Your task to perform on an android device: Search for "logitech g502" on target.com, select the first entry, add it to the cart, then select checkout. Image 0: 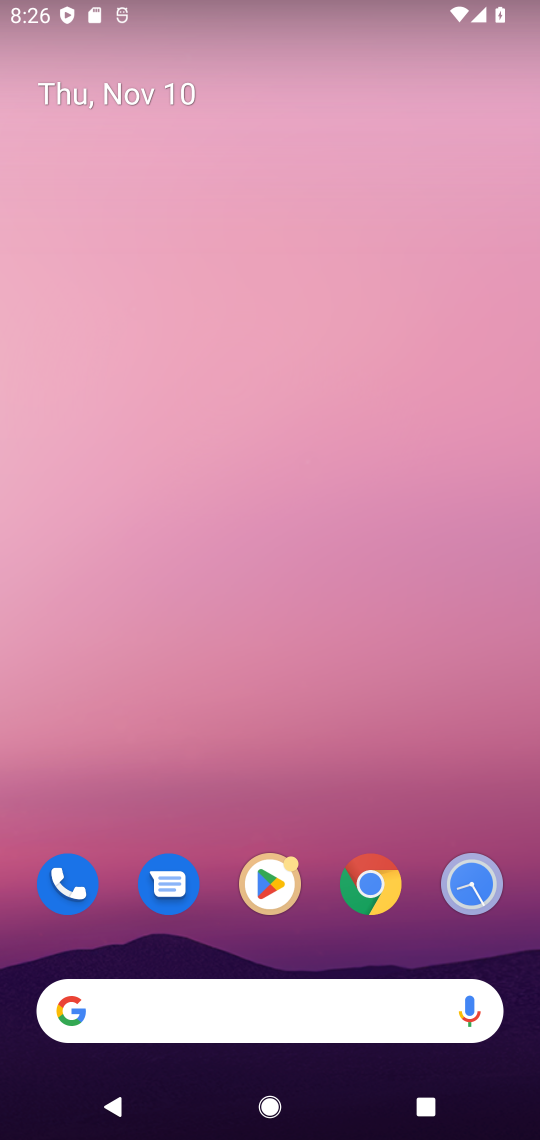
Step 0: click (316, 997)
Your task to perform on an android device: Search for "logitech g502" on target.com, select the first entry, add it to the cart, then select checkout. Image 1: 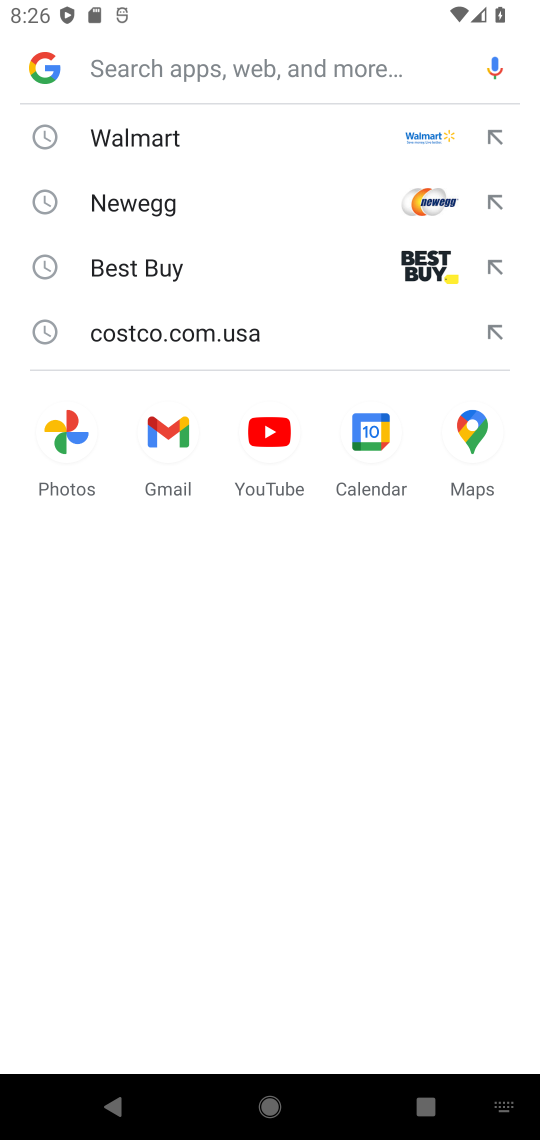
Step 1: type " target.com"
Your task to perform on an android device: Search for "logitech g502" on target.com, select the first entry, add it to the cart, then select checkout. Image 2: 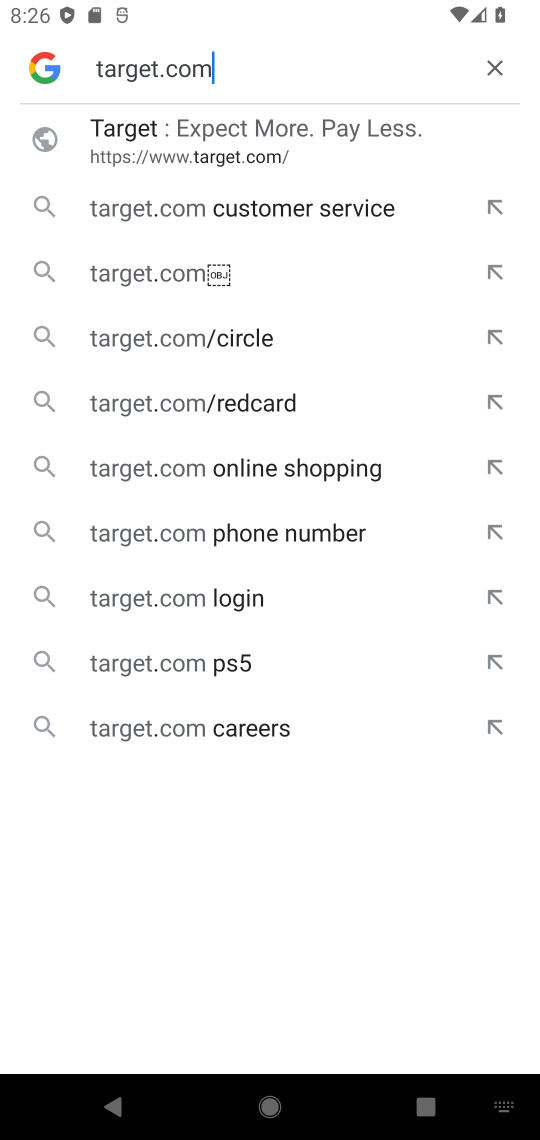
Step 2: click (225, 142)
Your task to perform on an android device: Search for "logitech g502" on target.com, select the first entry, add it to the cart, then select checkout. Image 3: 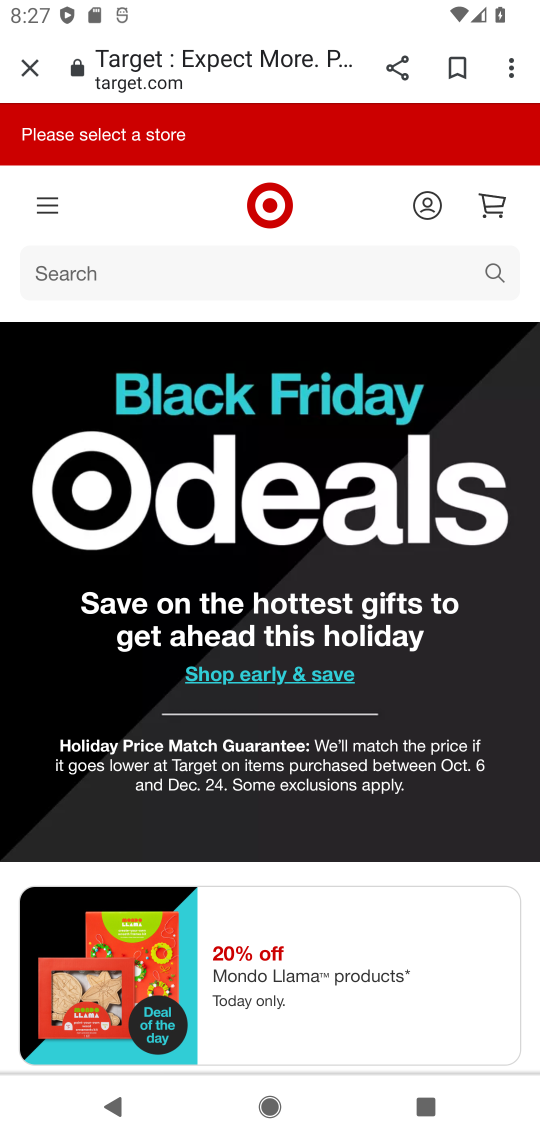
Step 3: click (162, 280)
Your task to perform on an android device: Search for "logitech g502" on target.com, select the first entry, add it to the cart, then select checkout. Image 4: 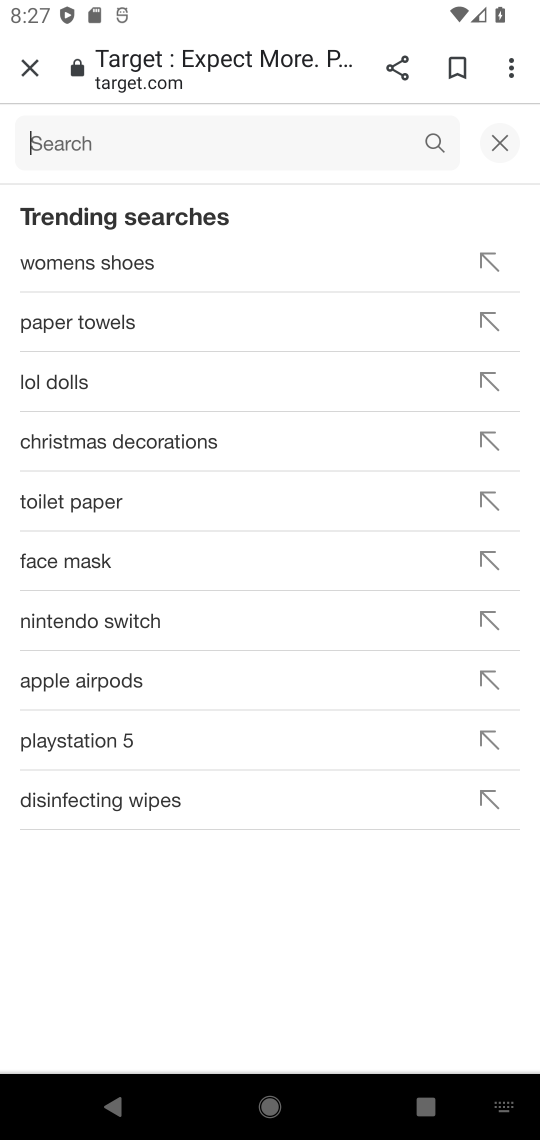
Step 4: type "logitech g502"
Your task to perform on an android device: Search for "logitech g502" on target.com, select the first entry, add it to the cart, then select checkout. Image 5: 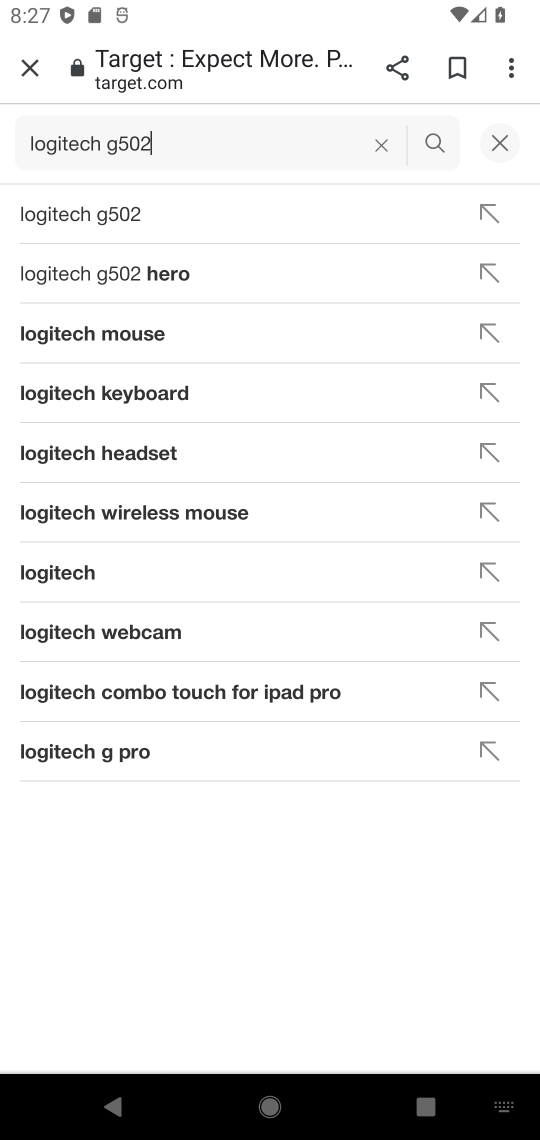
Step 5: click (98, 217)
Your task to perform on an android device: Search for "logitech g502" on target.com, select the first entry, add it to the cart, then select checkout. Image 6: 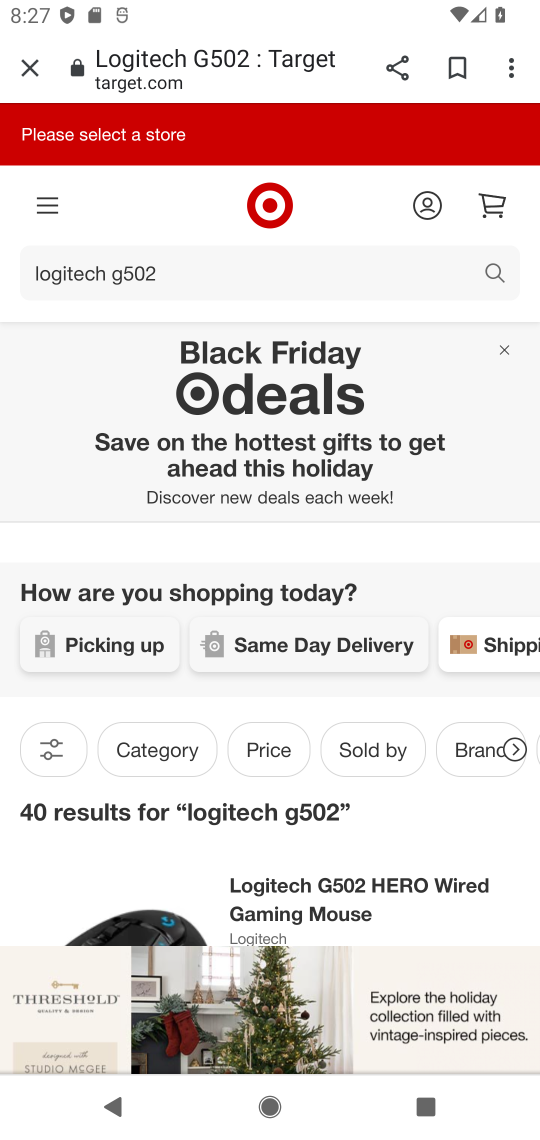
Step 6: drag from (284, 781) to (305, 585)
Your task to perform on an android device: Search for "logitech g502" on target.com, select the first entry, add it to the cart, then select checkout. Image 7: 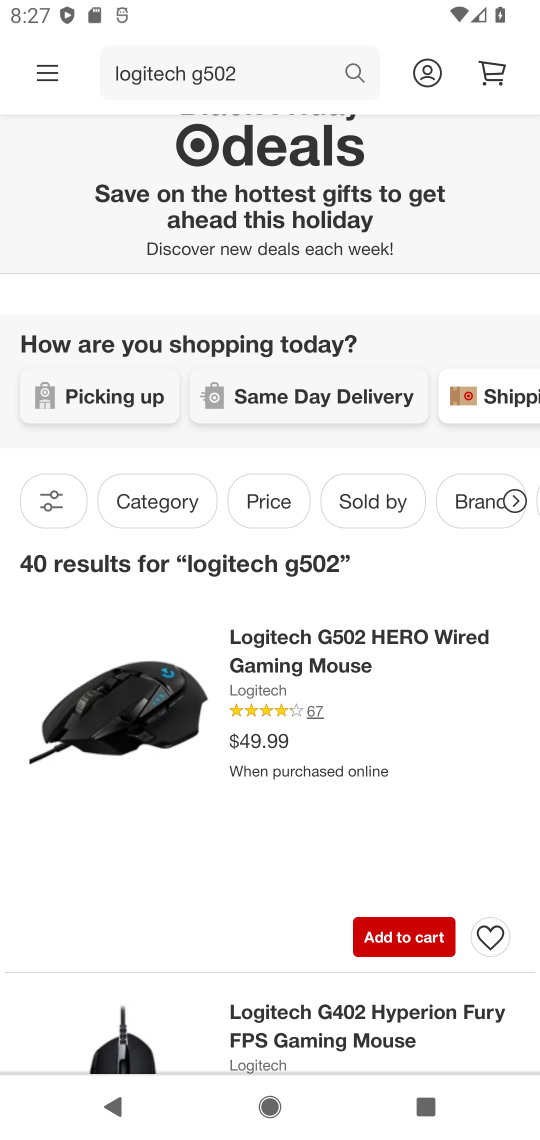
Step 7: click (392, 931)
Your task to perform on an android device: Search for "logitech g502" on target.com, select the first entry, add it to the cart, then select checkout. Image 8: 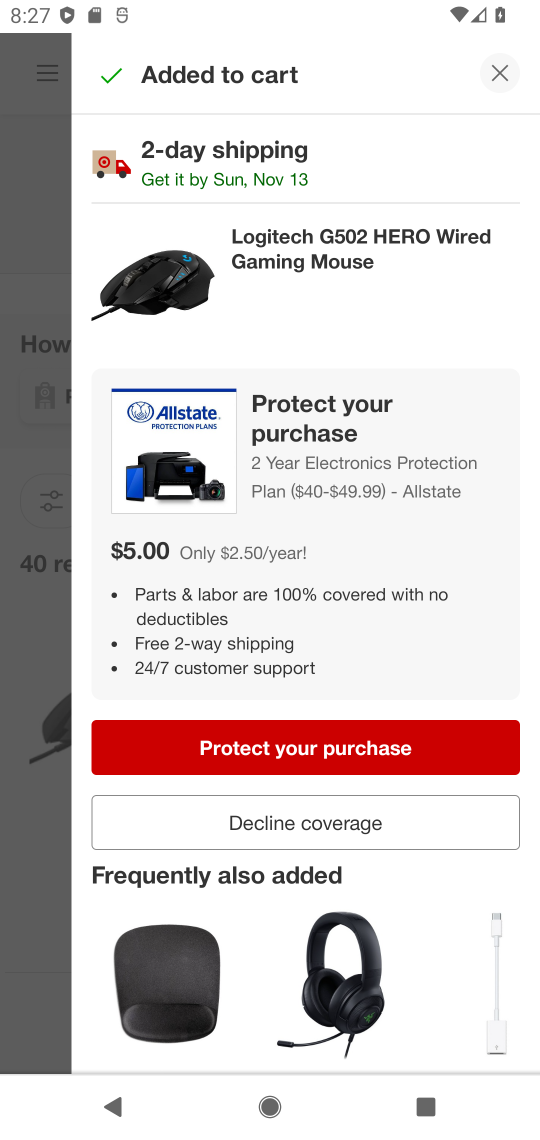
Step 8: click (315, 821)
Your task to perform on an android device: Search for "logitech g502" on target.com, select the first entry, add it to the cart, then select checkout. Image 9: 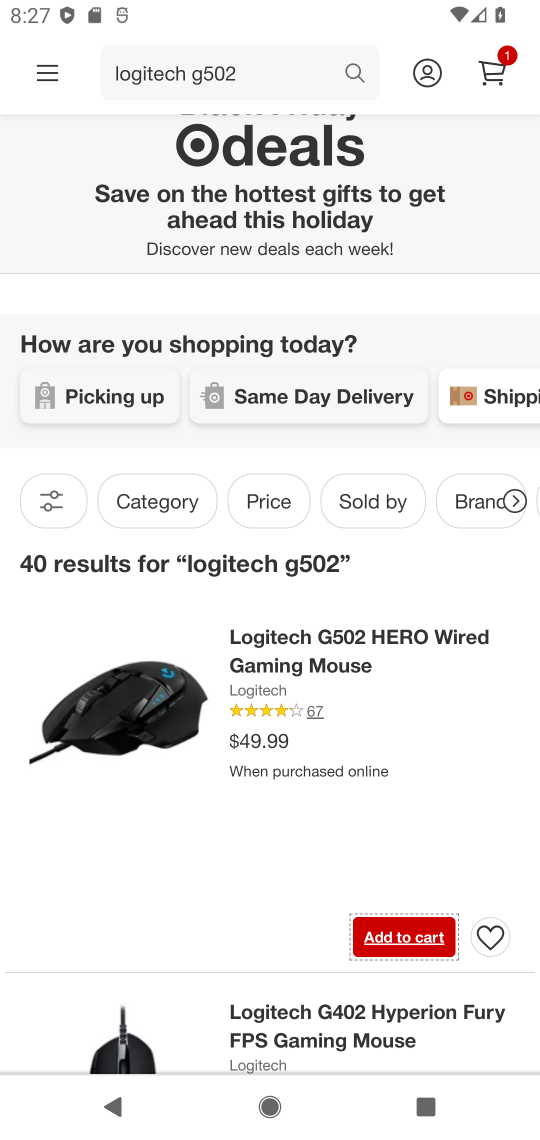
Step 9: click (490, 68)
Your task to perform on an android device: Search for "logitech g502" on target.com, select the first entry, add it to the cart, then select checkout. Image 10: 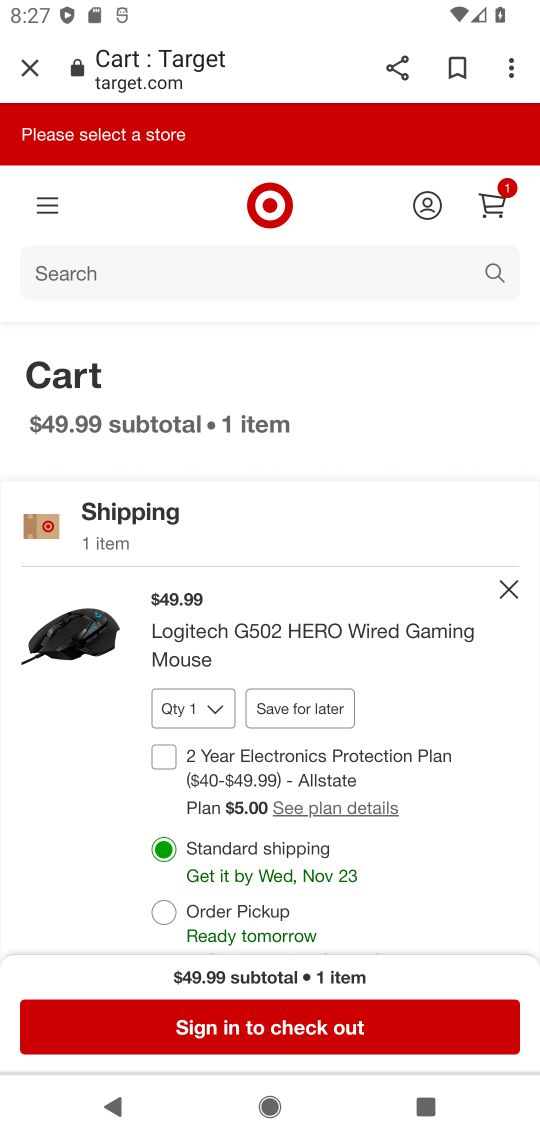
Step 10: click (269, 1016)
Your task to perform on an android device: Search for "logitech g502" on target.com, select the first entry, add it to the cart, then select checkout. Image 11: 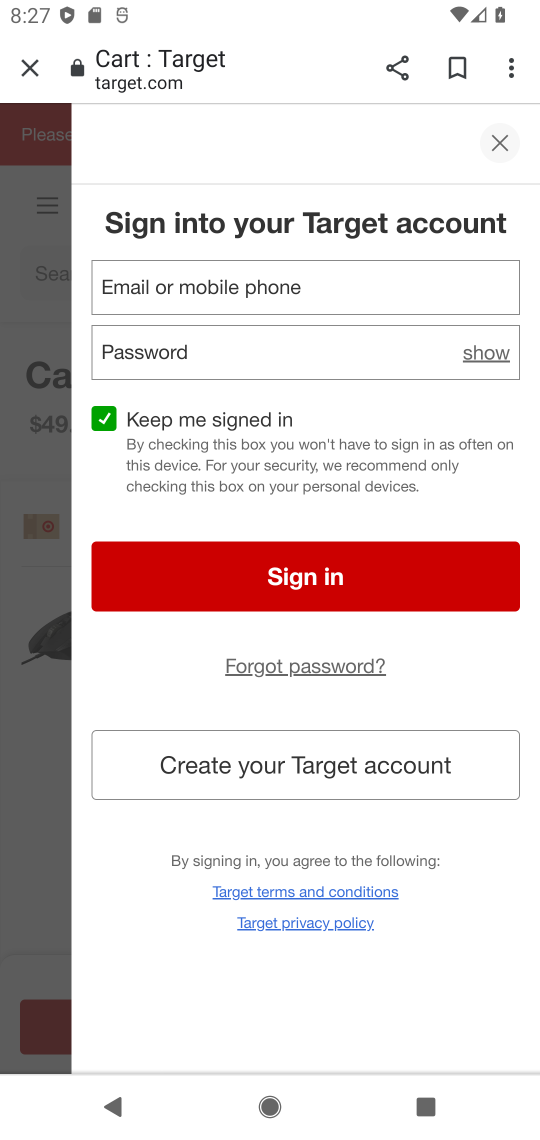
Step 11: task complete